Your task to perform on an android device: Open my contact list Image 0: 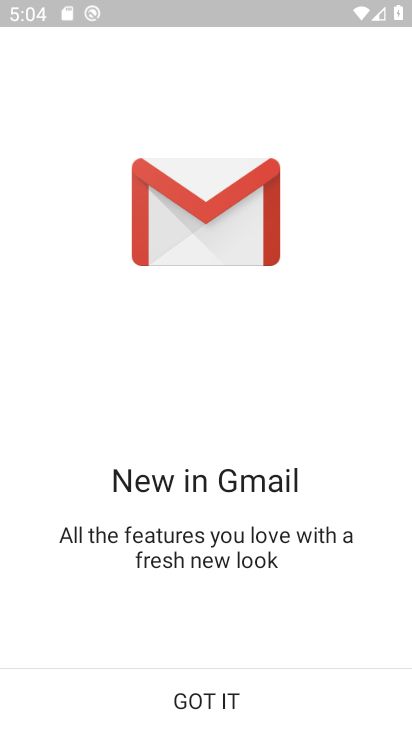
Step 0: press home button
Your task to perform on an android device: Open my contact list Image 1: 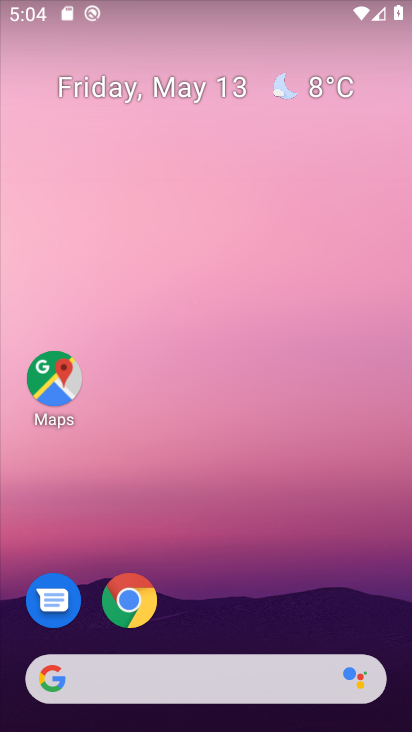
Step 1: drag from (292, 539) to (248, 116)
Your task to perform on an android device: Open my contact list Image 2: 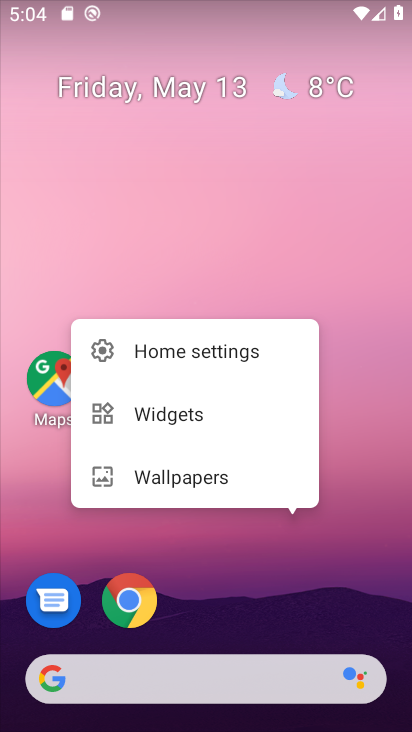
Step 2: click (244, 577)
Your task to perform on an android device: Open my contact list Image 3: 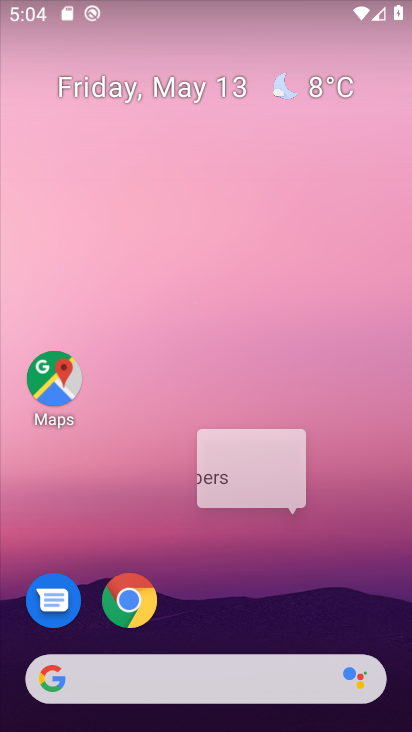
Step 3: drag from (244, 577) to (229, 129)
Your task to perform on an android device: Open my contact list Image 4: 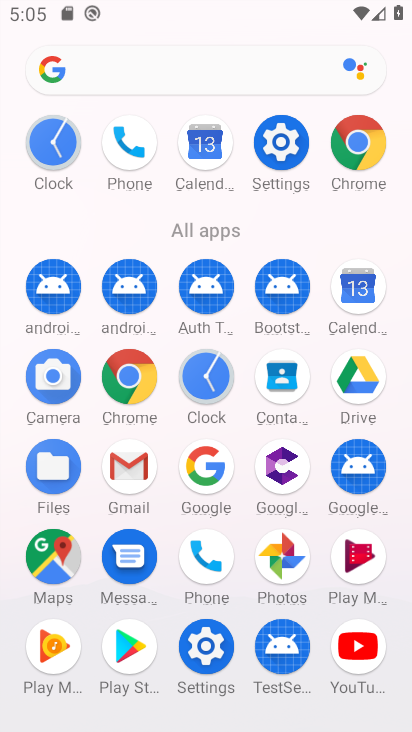
Step 4: click (279, 399)
Your task to perform on an android device: Open my contact list Image 5: 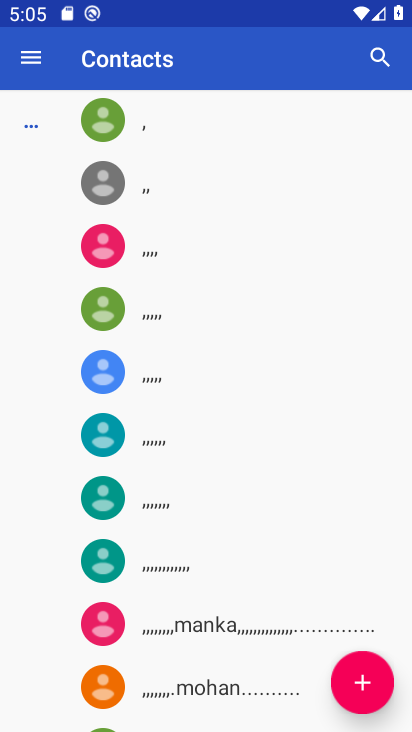
Step 5: task complete